Your task to perform on an android device: Open maps Image 0: 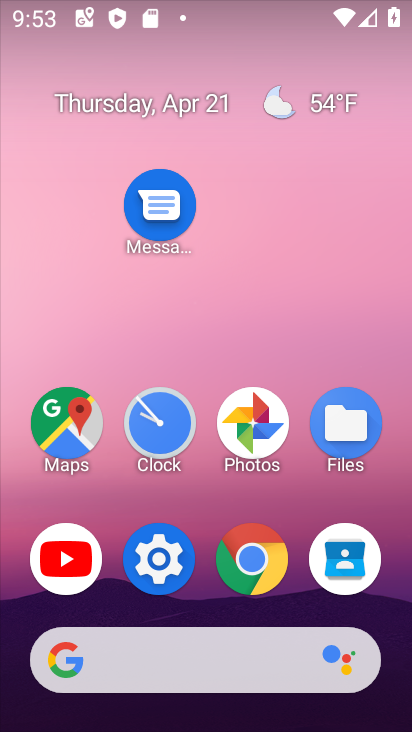
Step 0: click (69, 426)
Your task to perform on an android device: Open maps Image 1: 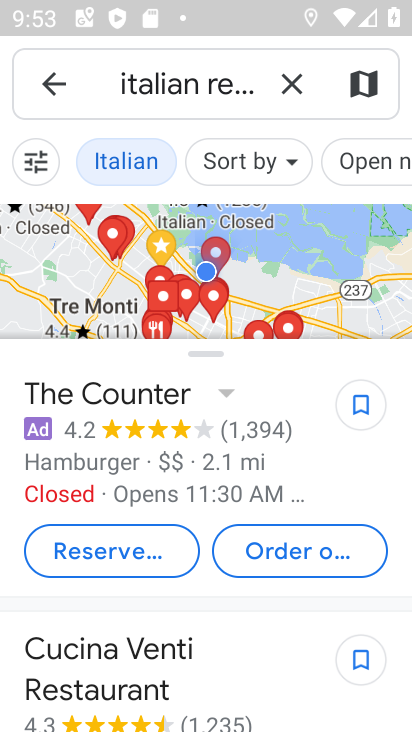
Step 1: task complete